Your task to perform on an android device: set default search engine in the chrome app Image 0: 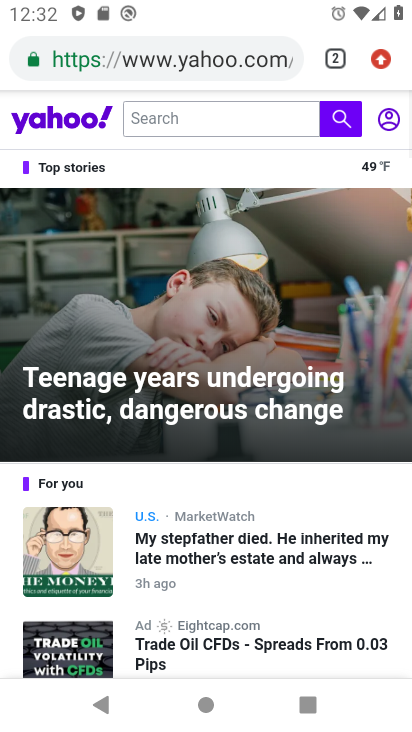
Step 0: press home button
Your task to perform on an android device: set default search engine in the chrome app Image 1: 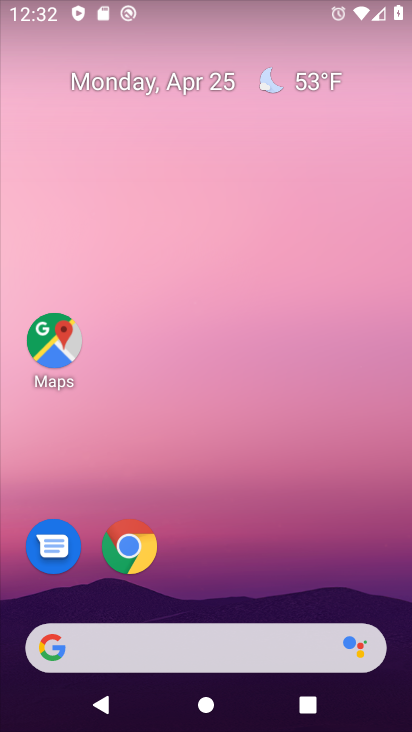
Step 1: click (125, 539)
Your task to perform on an android device: set default search engine in the chrome app Image 2: 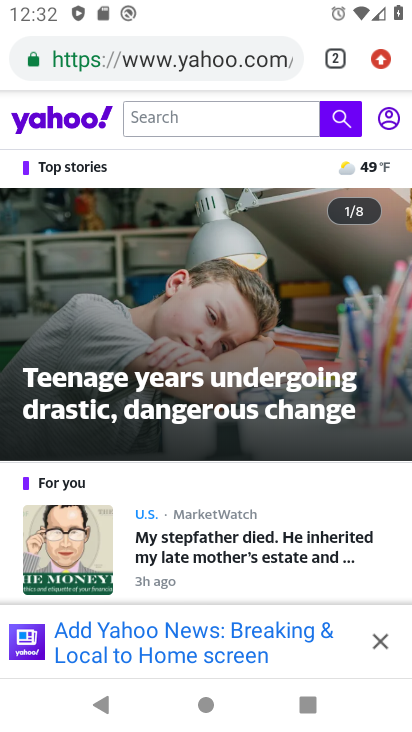
Step 2: drag from (381, 62) to (193, 567)
Your task to perform on an android device: set default search engine in the chrome app Image 3: 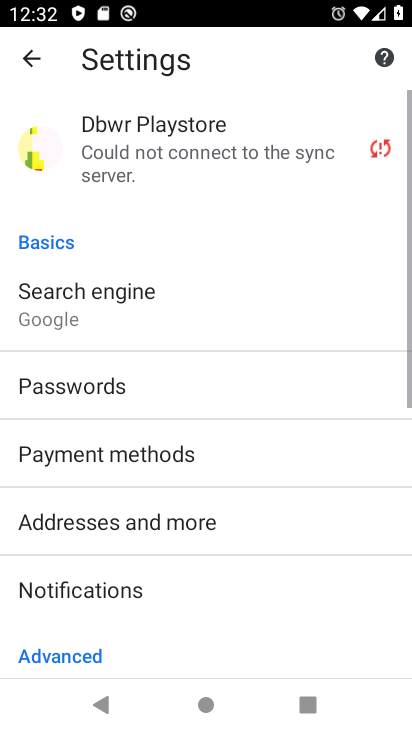
Step 3: click (121, 284)
Your task to perform on an android device: set default search engine in the chrome app Image 4: 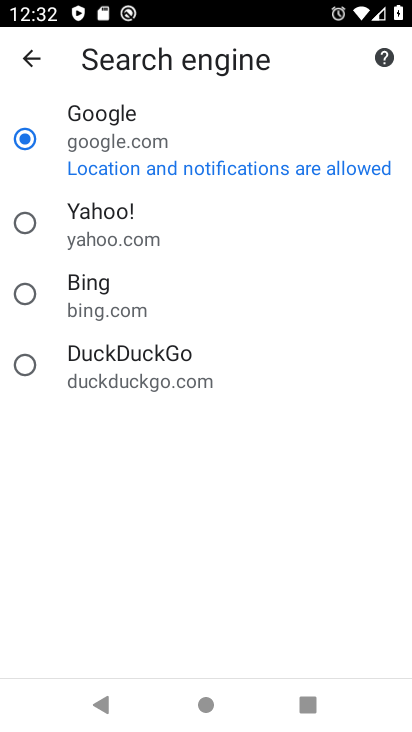
Step 4: click (104, 294)
Your task to perform on an android device: set default search engine in the chrome app Image 5: 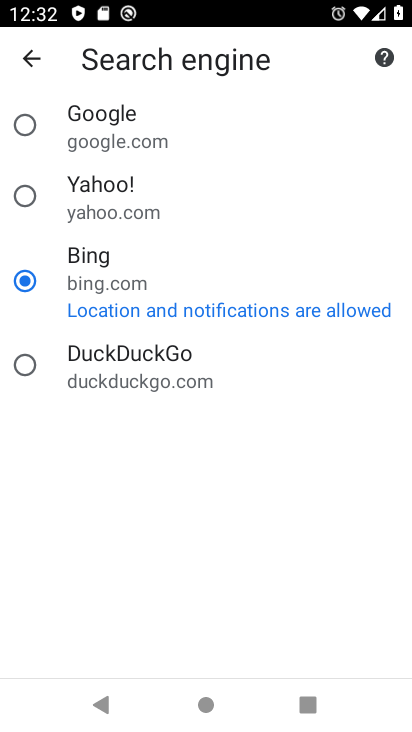
Step 5: task complete